Your task to perform on an android device: Open location settings Image 0: 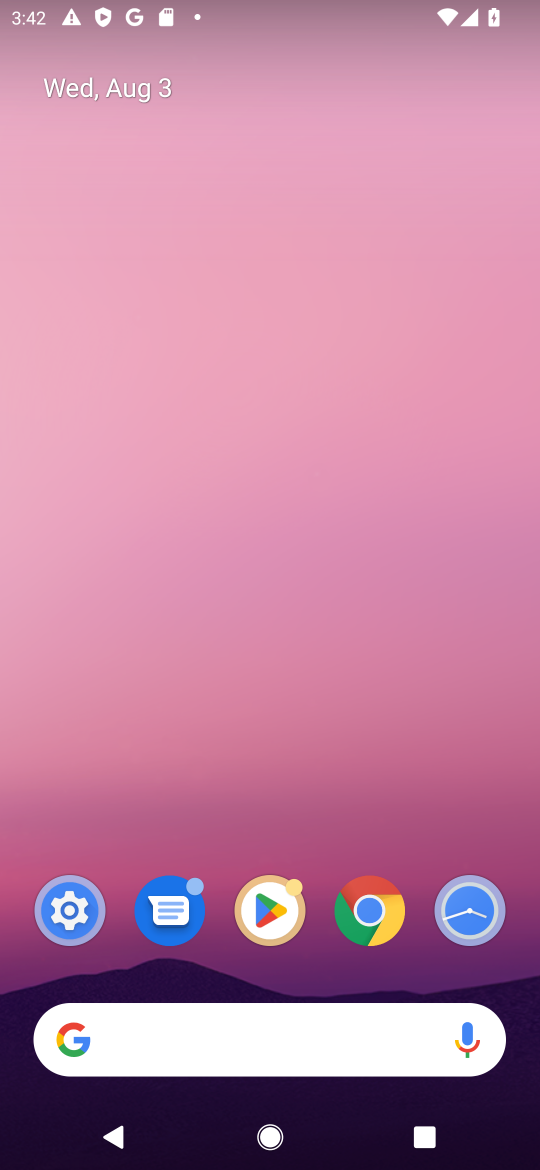
Step 0: drag from (45, 1122) to (338, 409)
Your task to perform on an android device: Open location settings Image 1: 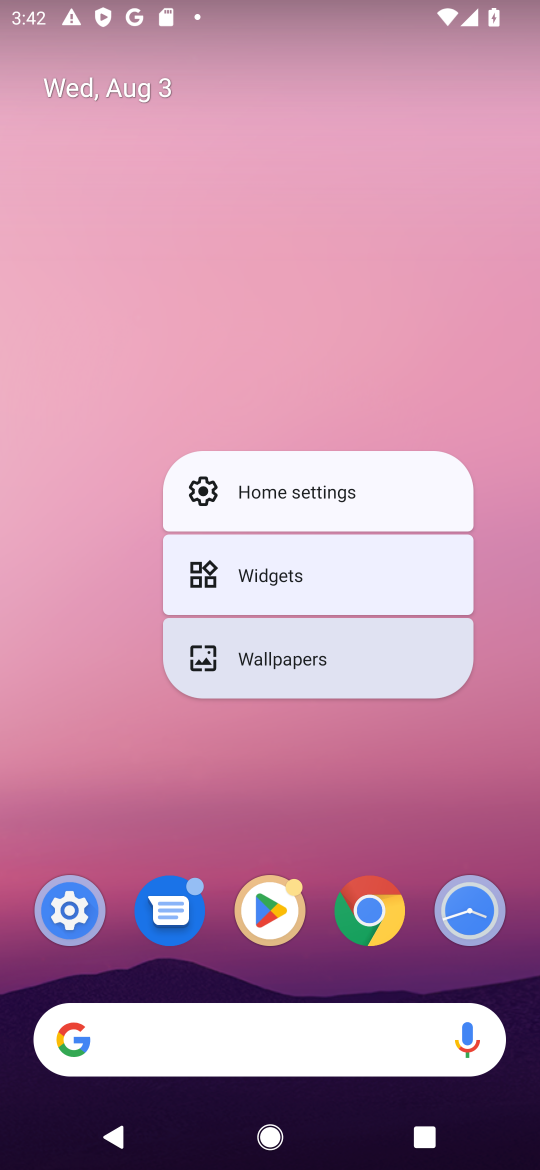
Step 1: drag from (60, 1132) to (285, 116)
Your task to perform on an android device: Open location settings Image 2: 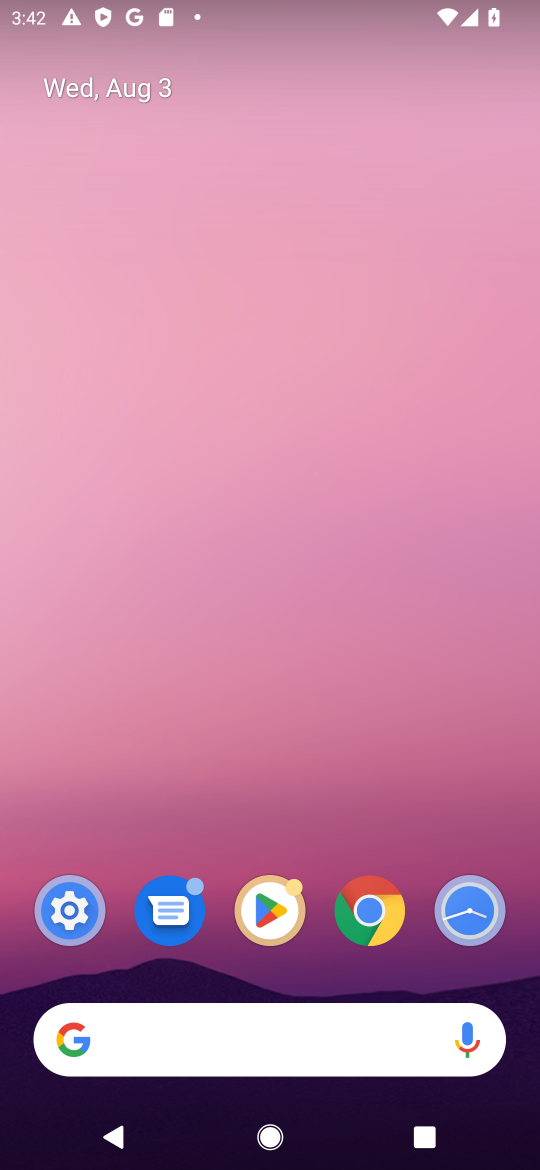
Step 2: drag from (142, 957) to (387, 345)
Your task to perform on an android device: Open location settings Image 3: 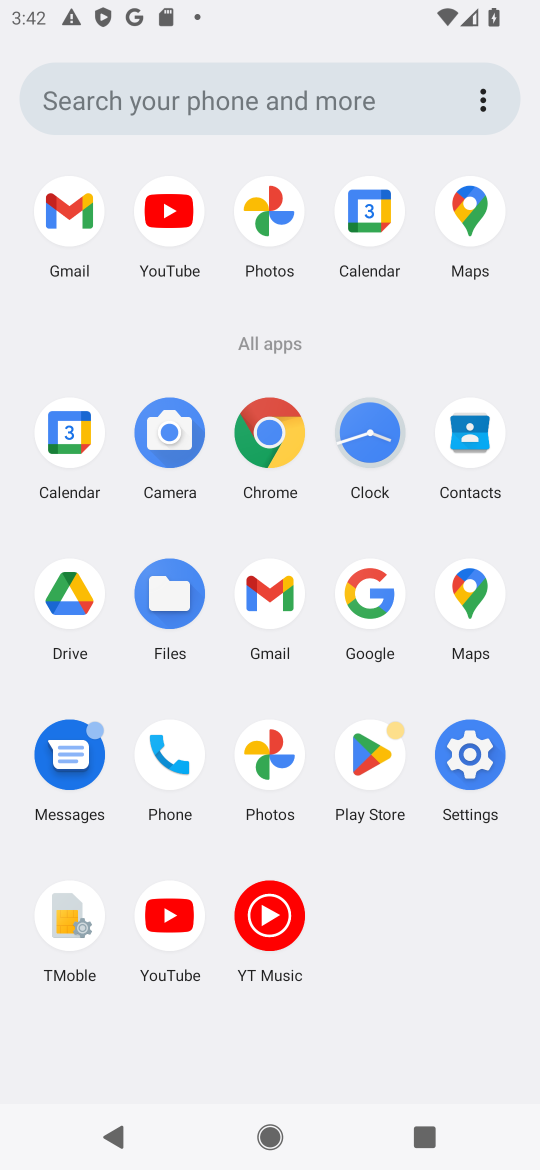
Step 3: click (482, 755)
Your task to perform on an android device: Open location settings Image 4: 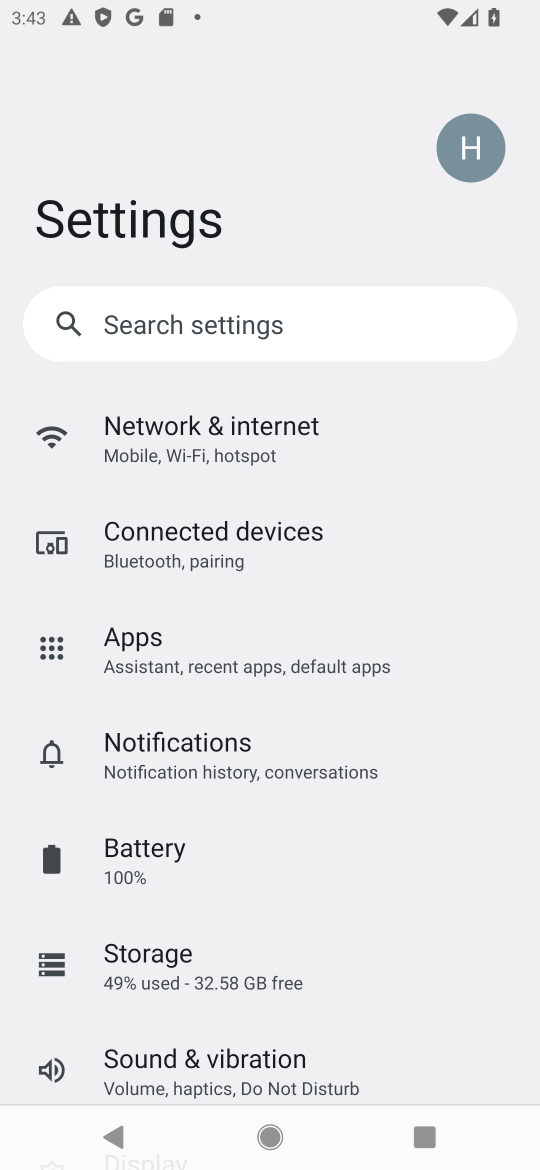
Step 4: drag from (360, 475) to (364, 155)
Your task to perform on an android device: Open location settings Image 5: 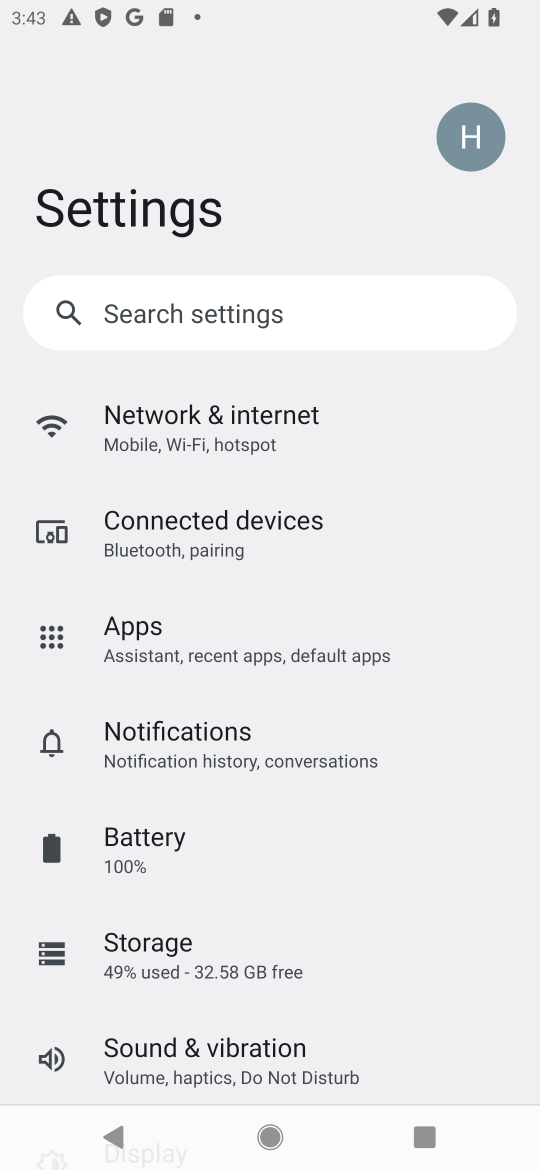
Step 5: drag from (314, 996) to (331, 558)
Your task to perform on an android device: Open location settings Image 6: 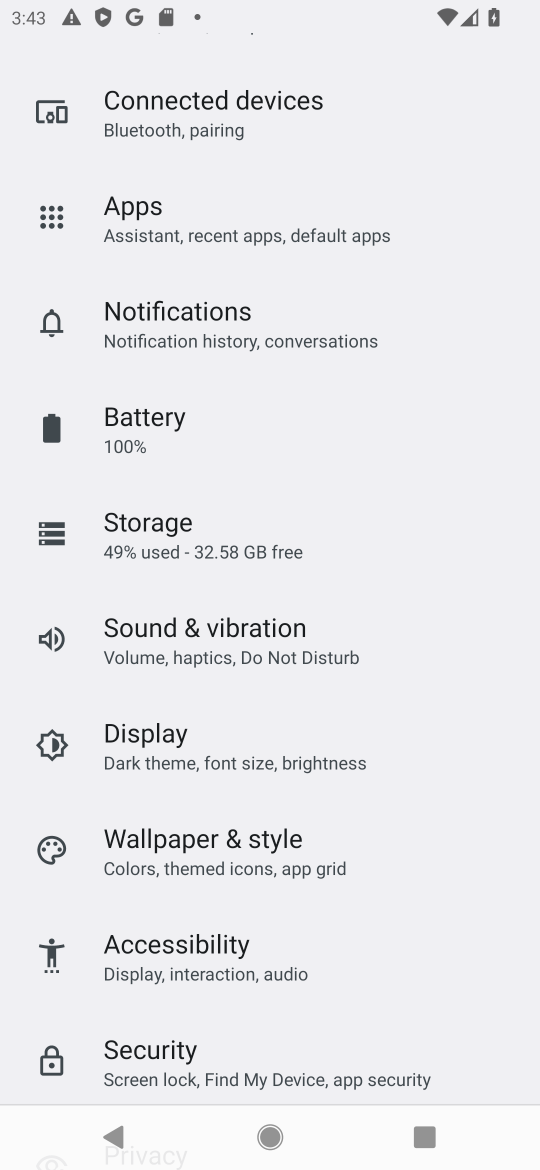
Step 6: drag from (274, 1032) to (347, 260)
Your task to perform on an android device: Open location settings Image 7: 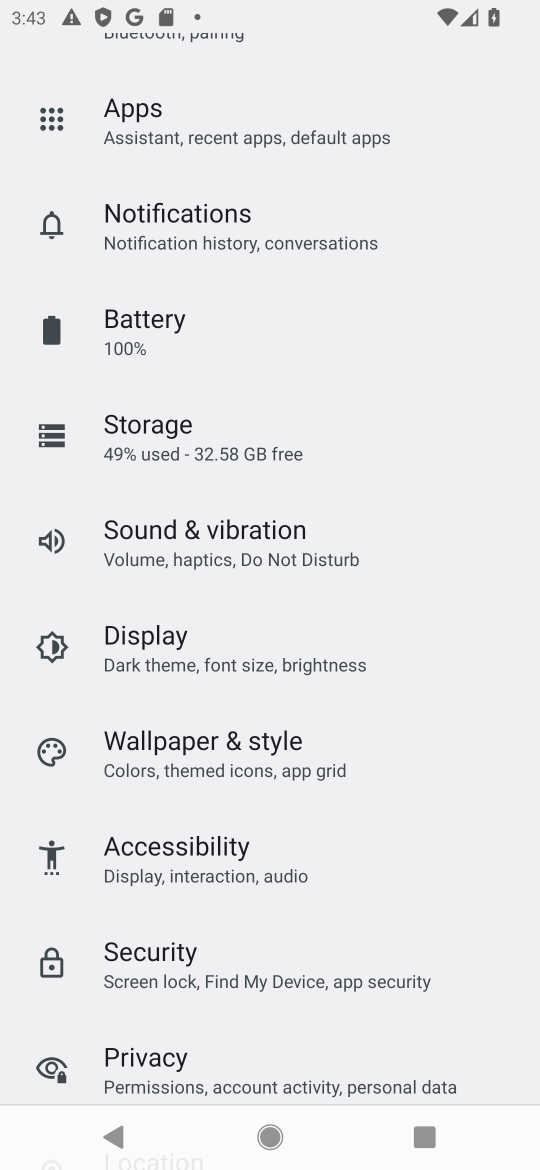
Step 7: drag from (272, 983) to (386, 266)
Your task to perform on an android device: Open location settings Image 8: 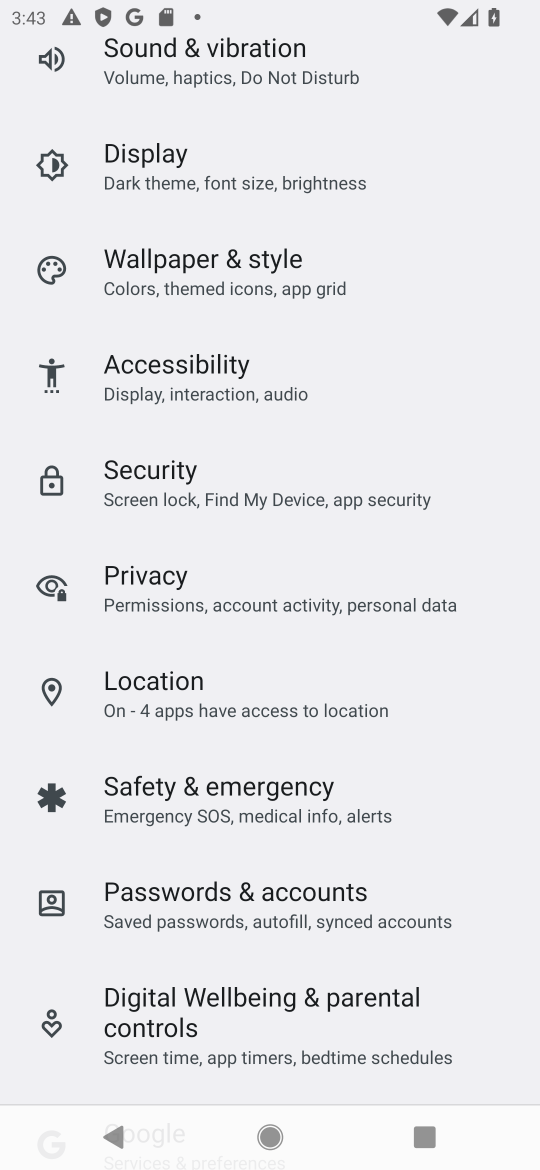
Step 8: click (203, 700)
Your task to perform on an android device: Open location settings Image 9: 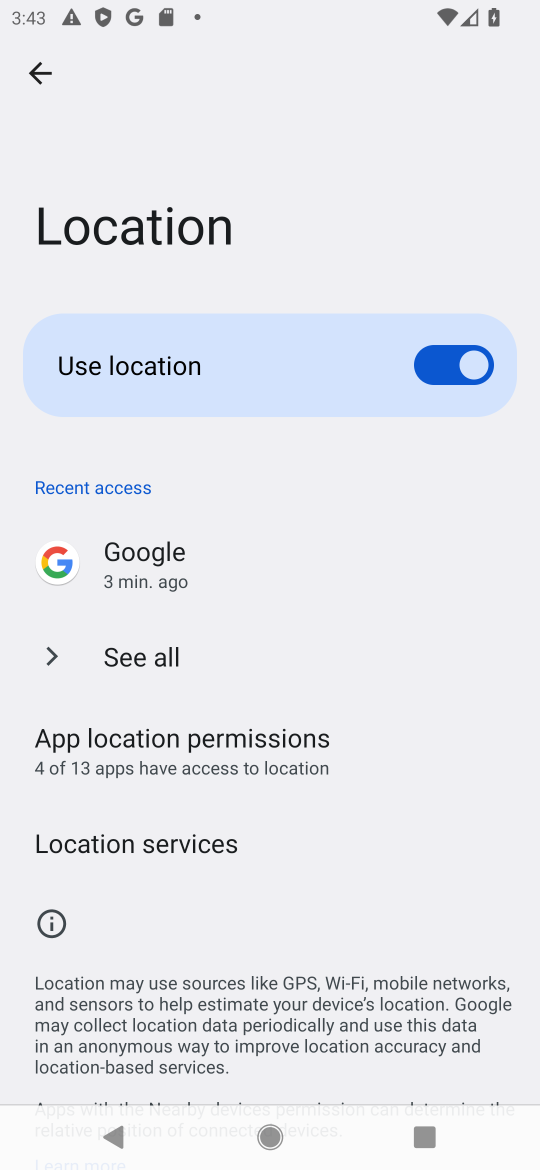
Step 9: task complete